Your task to perform on an android device: Go to internet settings Image 0: 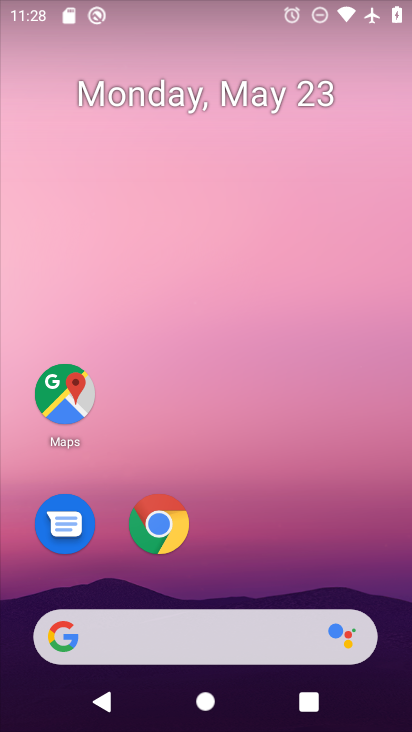
Step 0: drag from (208, 574) to (190, 102)
Your task to perform on an android device: Go to internet settings Image 1: 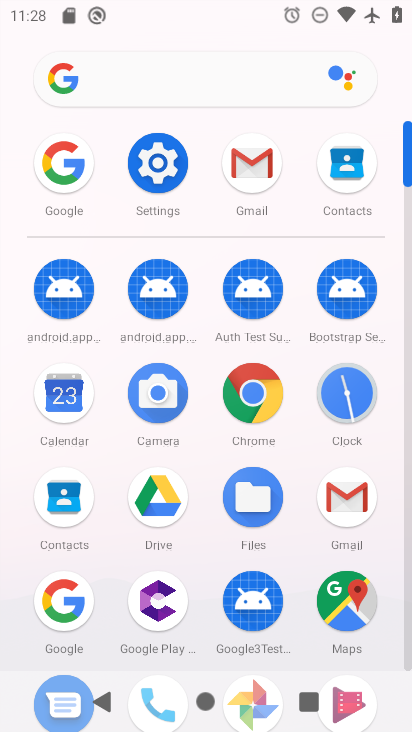
Step 1: click (181, 170)
Your task to perform on an android device: Go to internet settings Image 2: 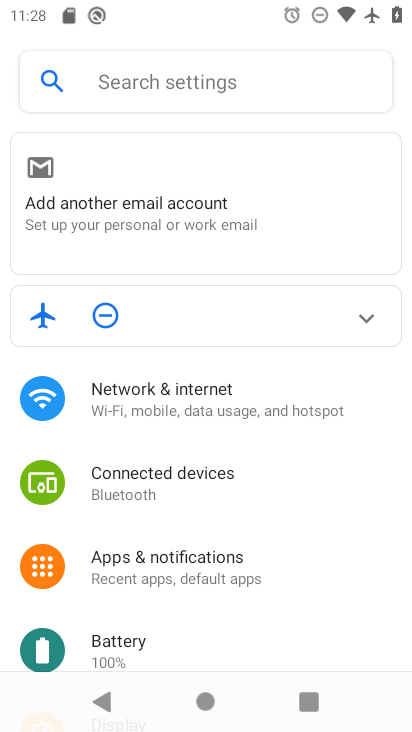
Step 2: click (176, 414)
Your task to perform on an android device: Go to internet settings Image 3: 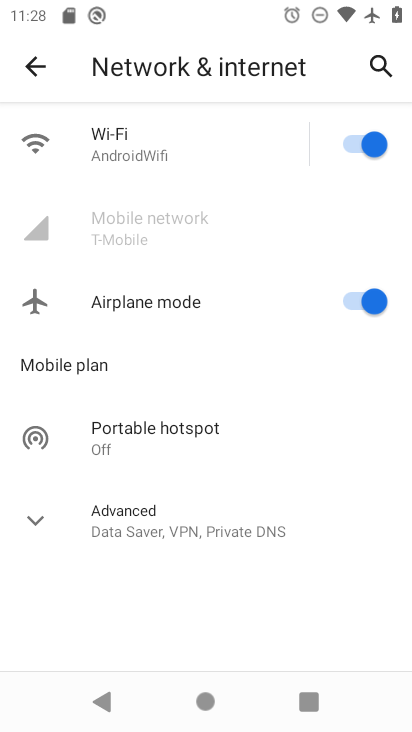
Step 3: click (186, 158)
Your task to perform on an android device: Go to internet settings Image 4: 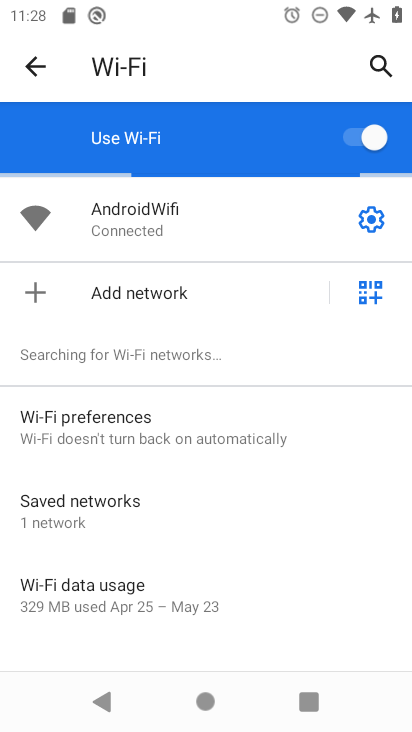
Step 4: task complete